Your task to perform on an android device: install app "Facebook Messenger" Image 0: 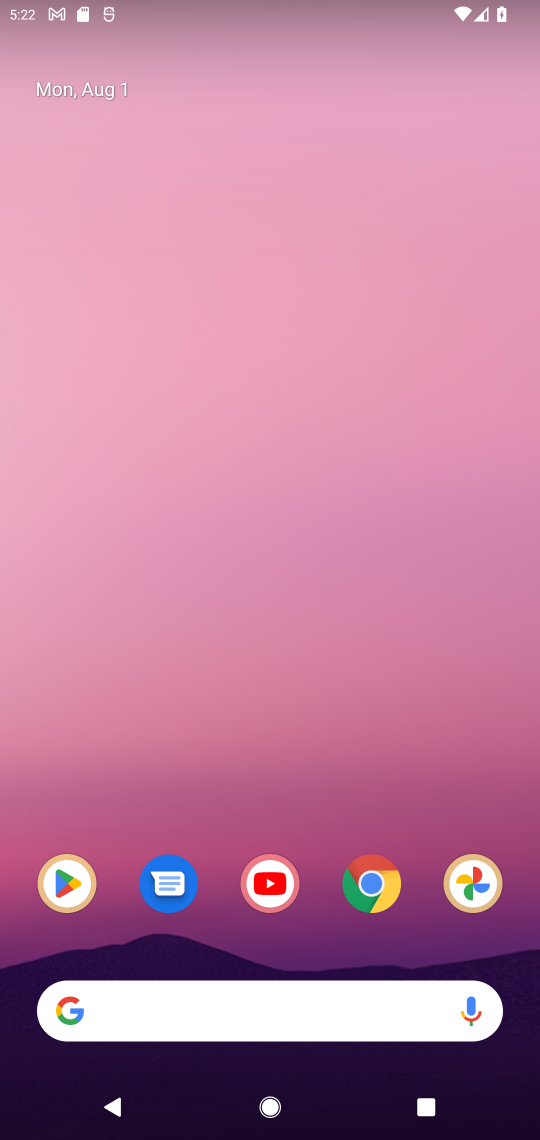
Step 0: click (63, 883)
Your task to perform on an android device: install app "Facebook Messenger" Image 1: 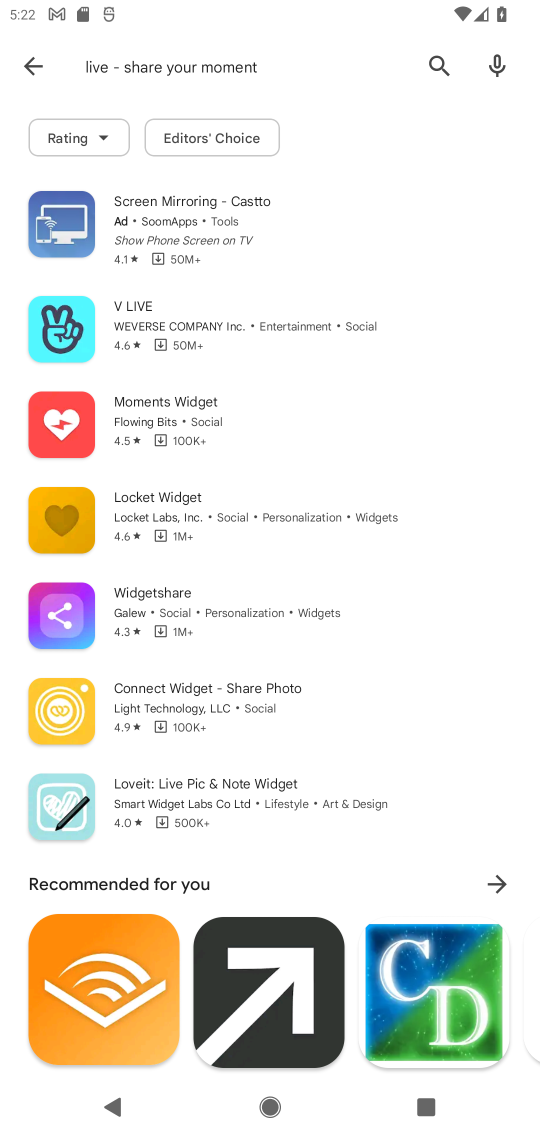
Step 1: click (42, 69)
Your task to perform on an android device: install app "Facebook Messenger" Image 2: 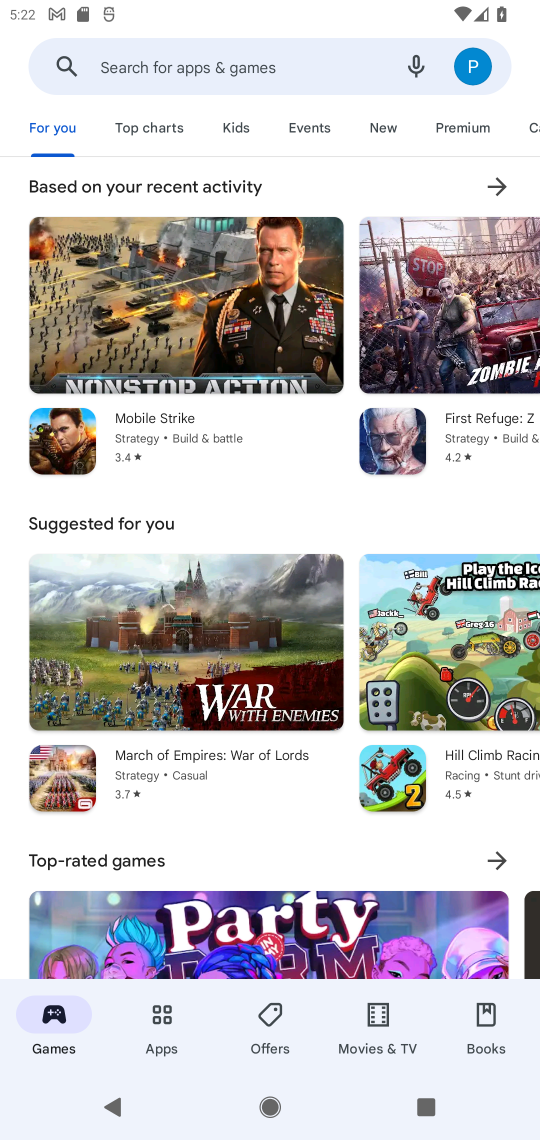
Step 2: click (129, 69)
Your task to perform on an android device: install app "Facebook Messenger" Image 3: 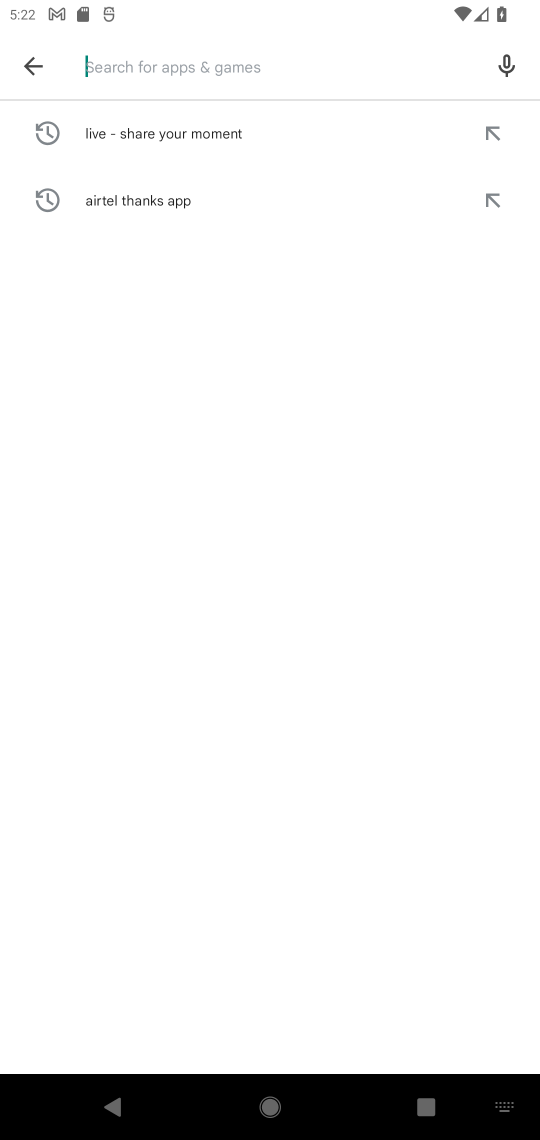
Step 3: type "Facebook Messenger"
Your task to perform on an android device: install app "Facebook Messenger" Image 4: 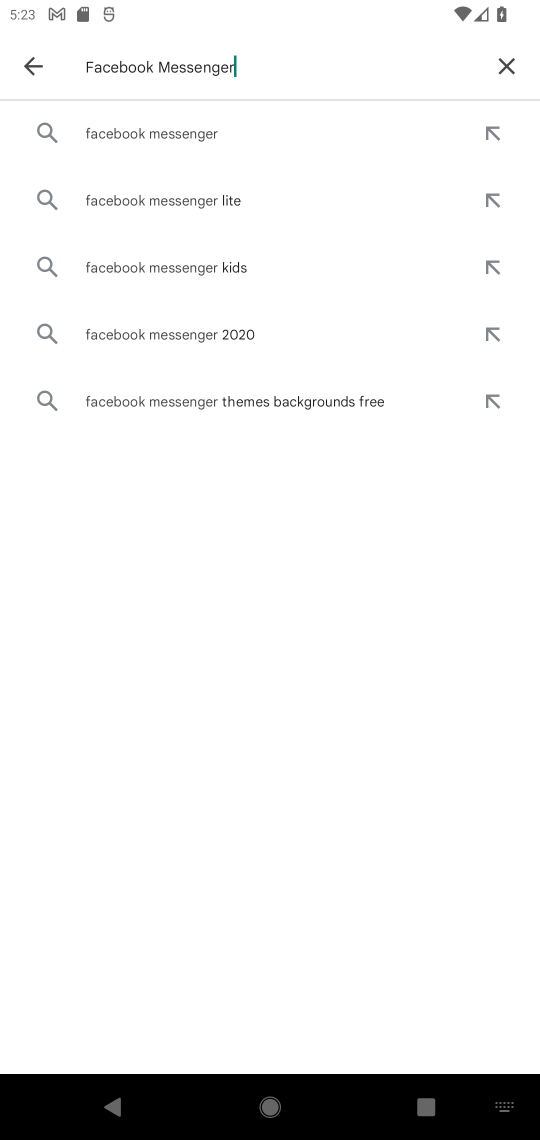
Step 4: click (158, 130)
Your task to perform on an android device: install app "Facebook Messenger" Image 5: 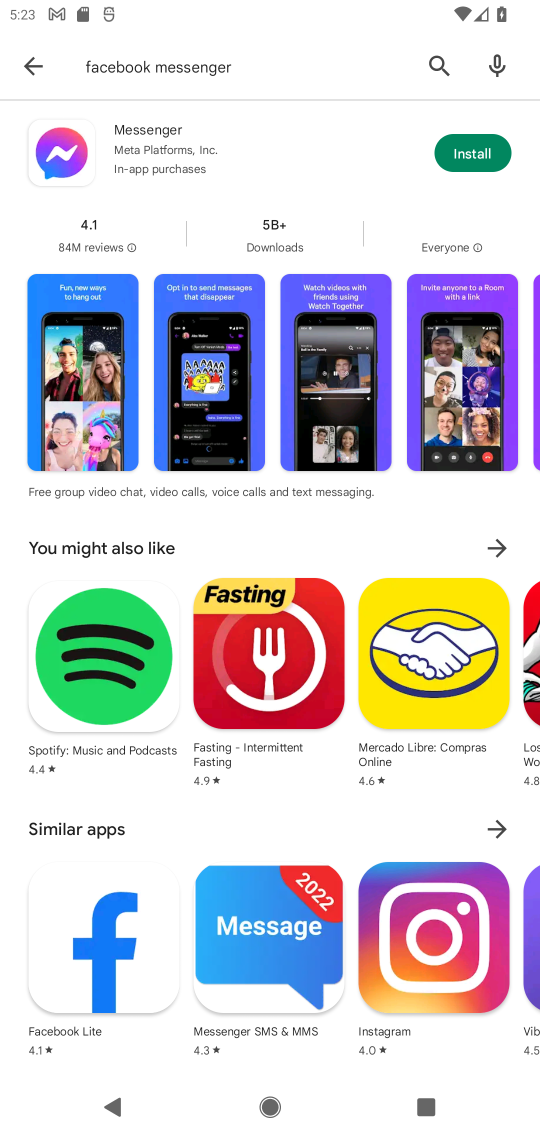
Step 5: click (487, 160)
Your task to perform on an android device: install app "Facebook Messenger" Image 6: 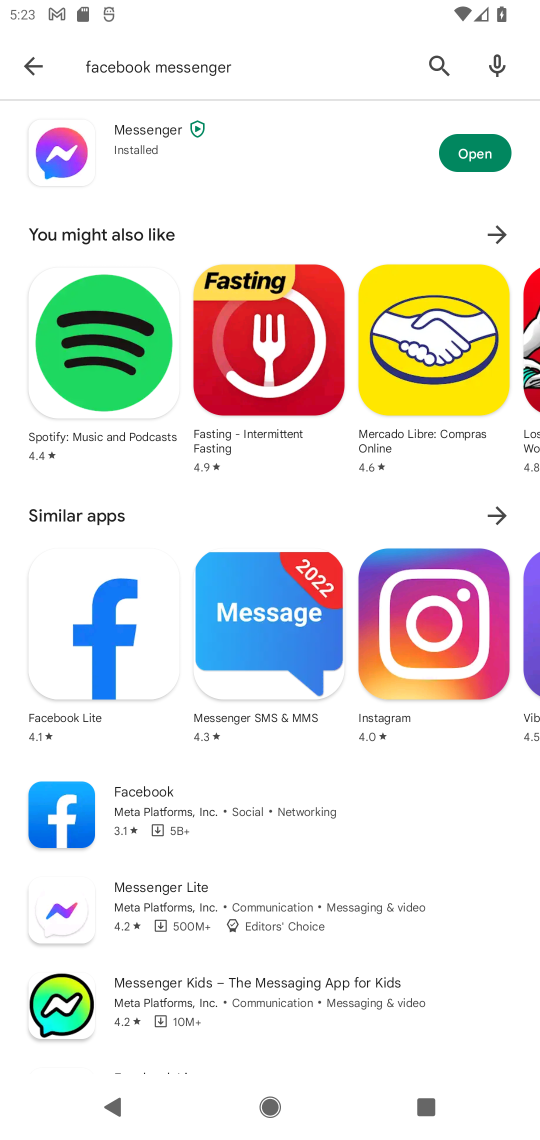
Step 6: click (487, 160)
Your task to perform on an android device: install app "Facebook Messenger" Image 7: 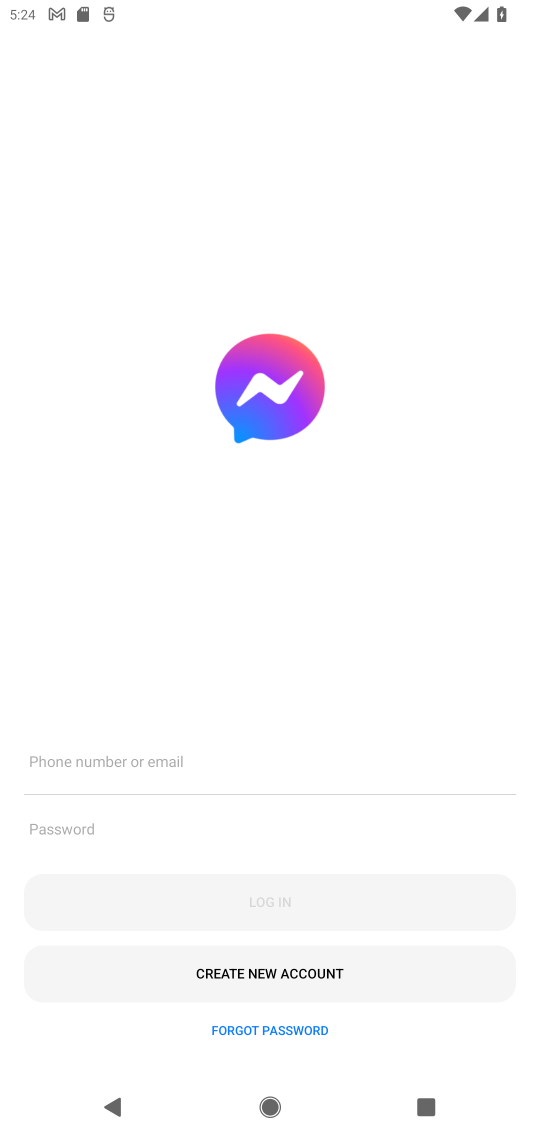
Step 7: task complete